Your task to perform on an android device: turn on showing notifications on the lock screen Image 0: 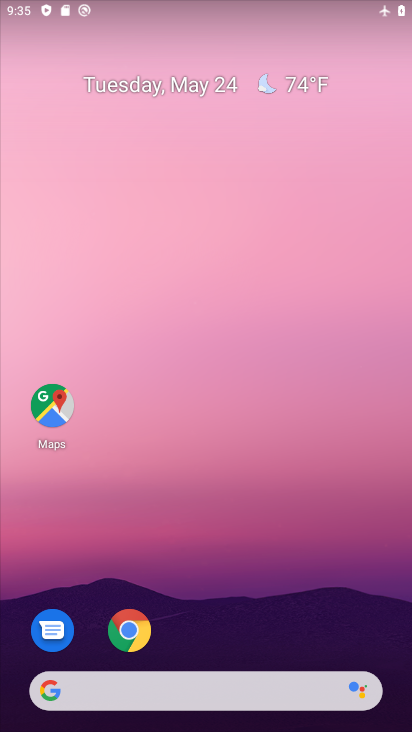
Step 0: drag from (246, 632) to (287, 10)
Your task to perform on an android device: turn on showing notifications on the lock screen Image 1: 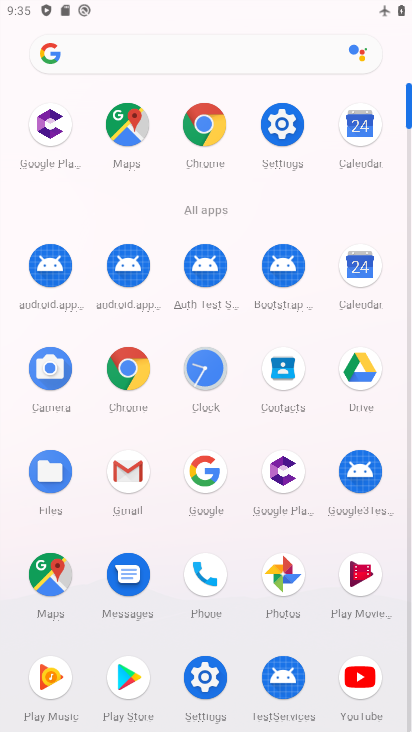
Step 1: click (275, 149)
Your task to perform on an android device: turn on showing notifications on the lock screen Image 2: 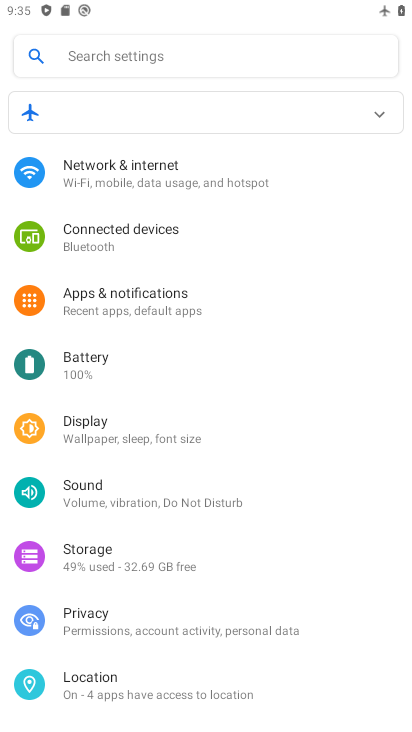
Step 2: click (116, 296)
Your task to perform on an android device: turn on showing notifications on the lock screen Image 3: 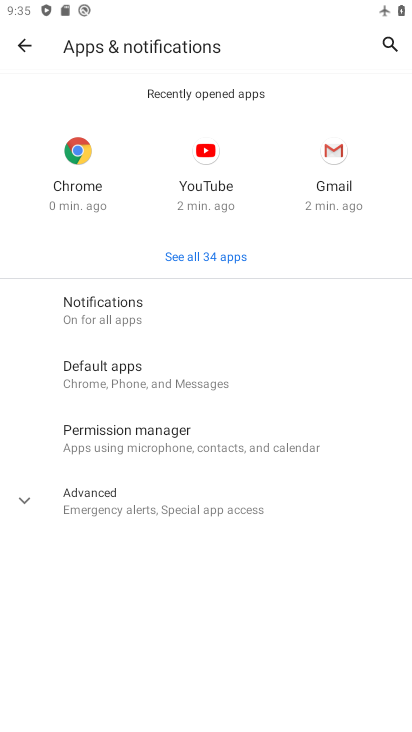
Step 3: click (102, 315)
Your task to perform on an android device: turn on showing notifications on the lock screen Image 4: 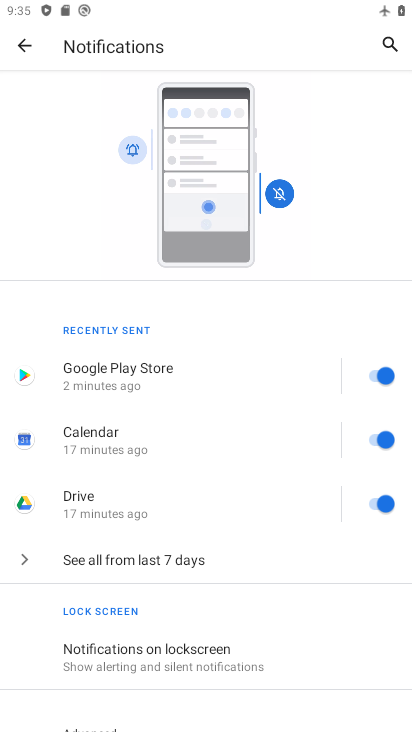
Step 4: click (186, 652)
Your task to perform on an android device: turn on showing notifications on the lock screen Image 5: 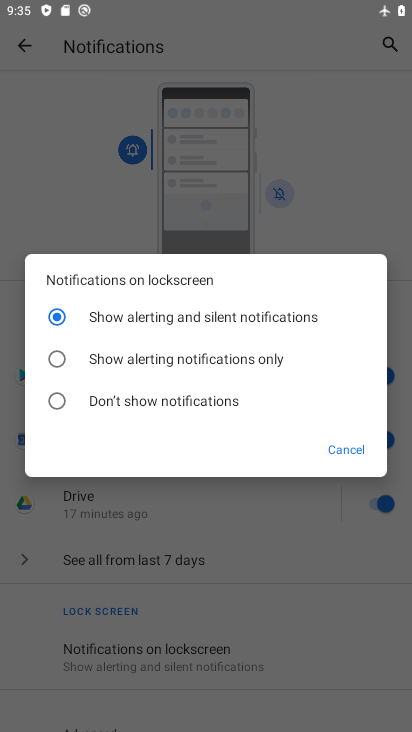
Step 5: task complete